Your task to perform on an android device: Go to display settings Image 0: 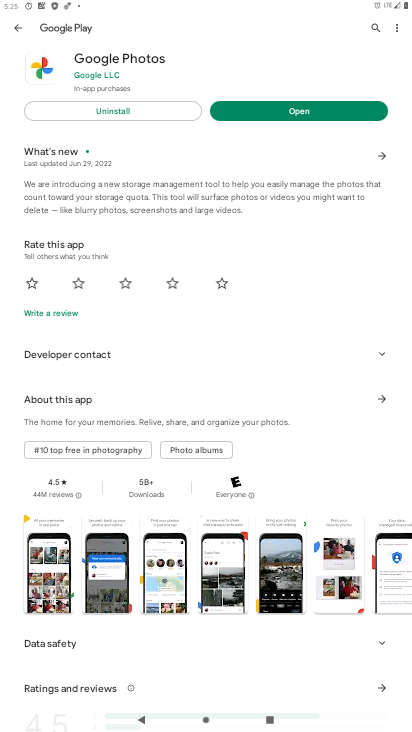
Step 0: press home button
Your task to perform on an android device: Go to display settings Image 1: 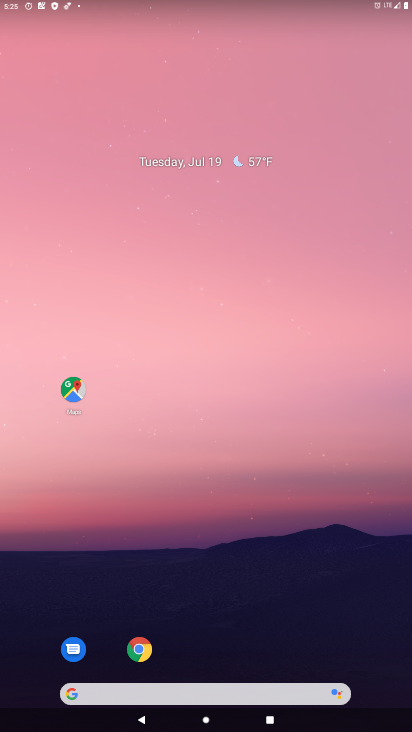
Step 1: drag from (172, 642) to (230, 4)
Your task to perform on an android device: Go to display settings Image 2: 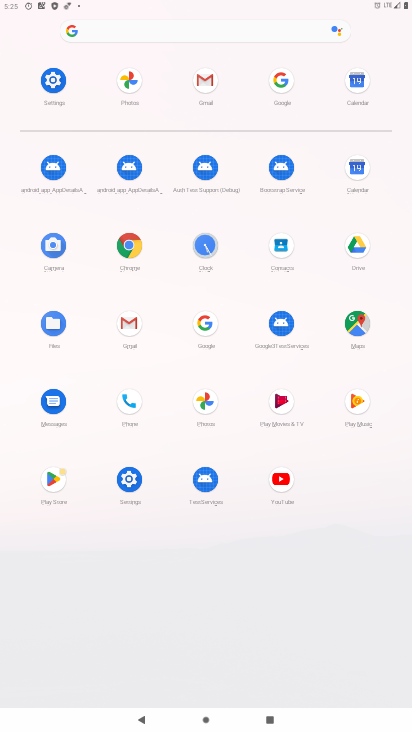
Step 2: click (52, 118)
Your task to perform on an android device: Go to display settings Image 3: 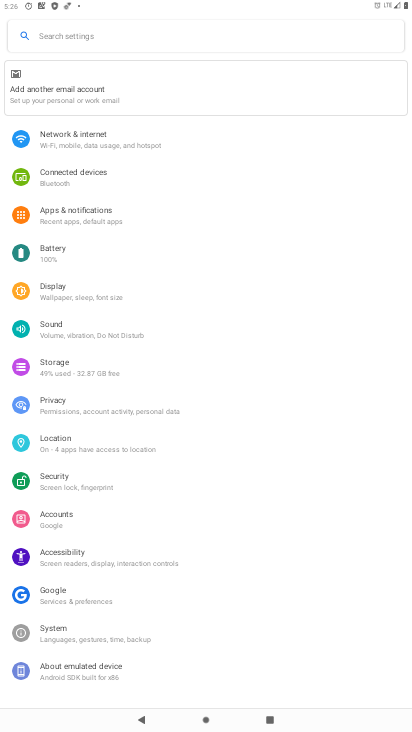
Step 3: click (51, 299)
Your task to perform on an android device: Go to display settings Image 4: 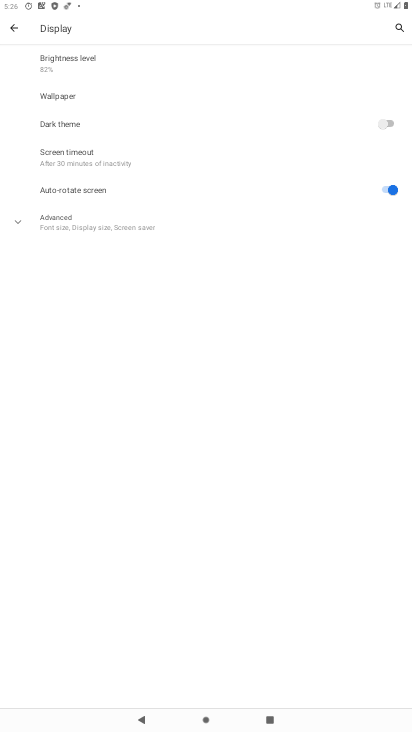
Step 4: task complete